Your task to perform on an android device: toggle javascript in the chrome app Image 0: 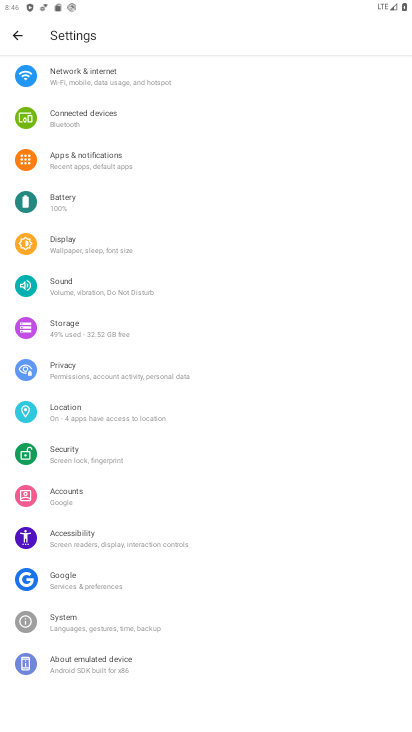
Step 0: press home button
Your task to perform on an android device: toggle javascript in the chrome app Image 1: 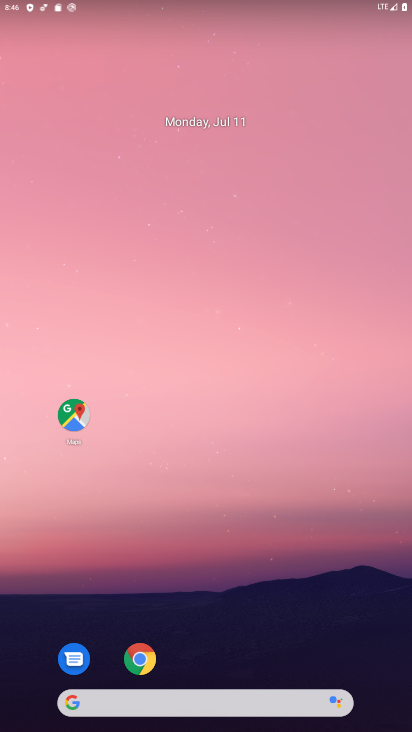
Step 1: click (138, 655)
Your task to perform on an android device: toggle javascript in the chrome app Image 2: 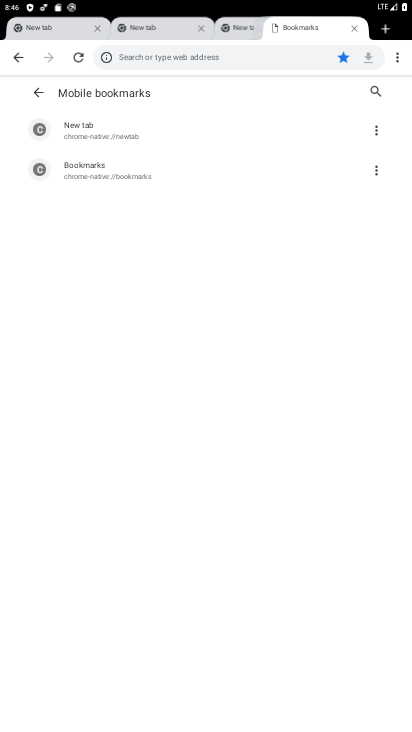
Step 2: click (397, 57)
Your task to perform on an android device: toggle javascript in the chrome app Image 3: 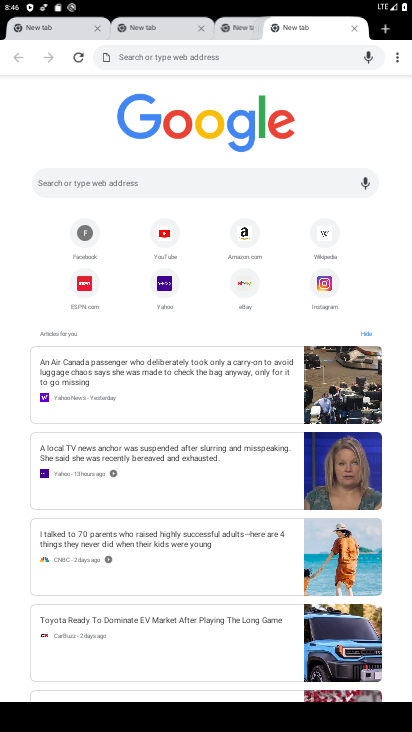
Step 3: click (397, 52)
Your task to perform on an android device: toggle javascript in the chrome app Image 4: 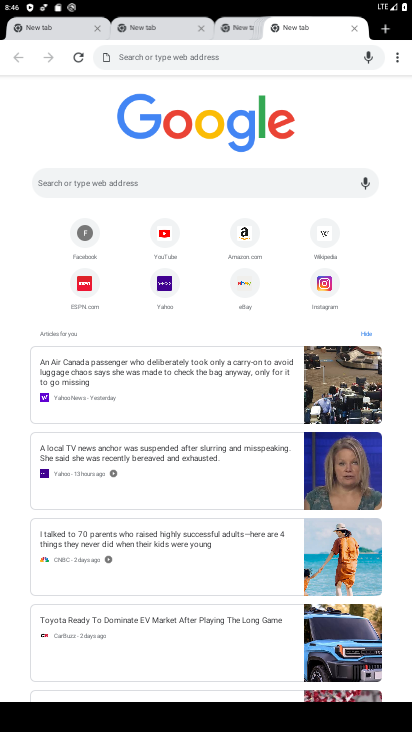
Step 4: click (395, 51)
Your task to perform on an android device: toggle javascript in the chrome app Image 5: 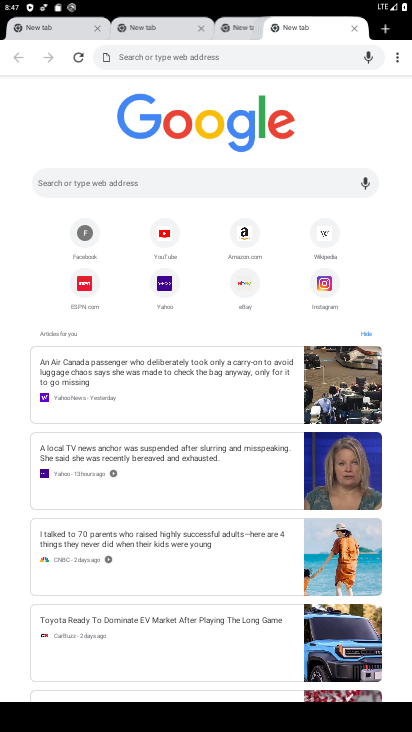
Step 5: task complete